Your task to perform on an android device: change the clock display to show seconds Image 0: 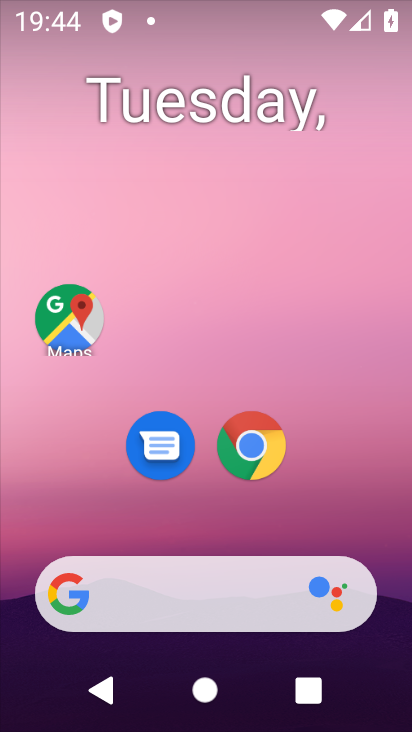
Step 0: drag from (199, 535) to (402, 33)
Your task to perform on an android device: change the clock display to show seconds Image 1: 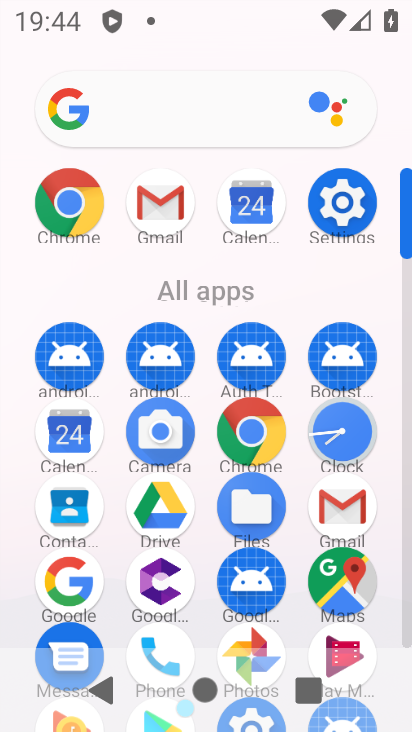
Step 1: click (331, 443)
Your task to perform on an android device: change the clock display to show seconds Image 2: 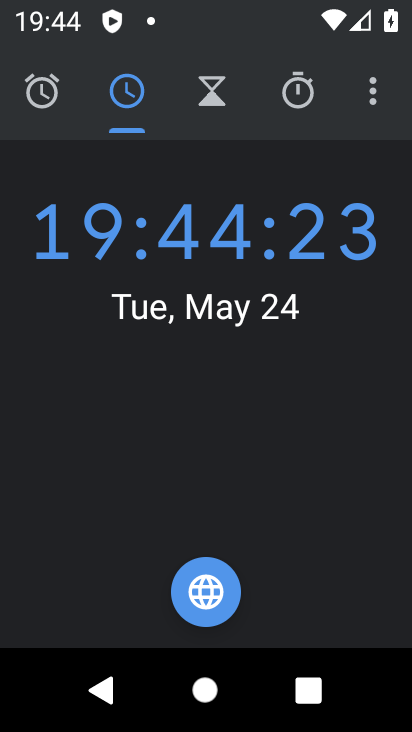
Step 2: click (381, 96)
Your task to perform on an android device: change the clock display to show seconds Image 3: 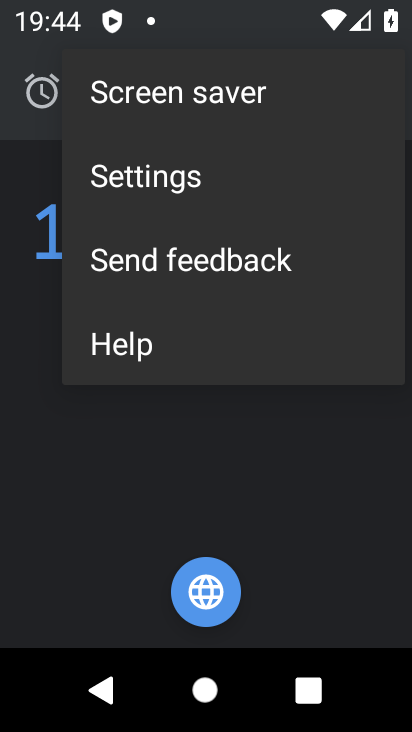
Step 3: click (223, 174)
Your task to perform on an android device: change the clock display to show seconds Image 4: 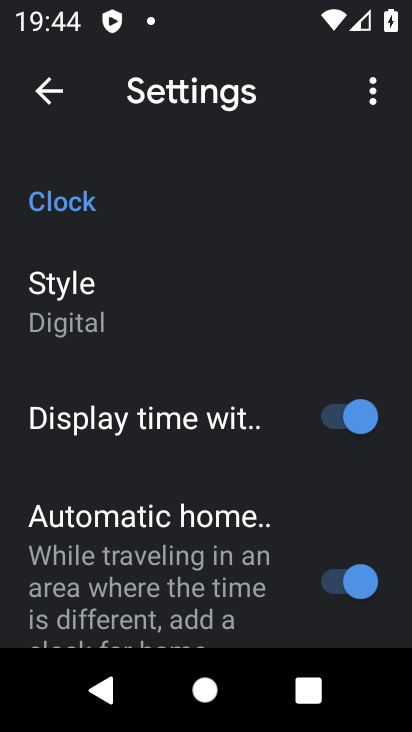
Step 4: click (40, 311)
Your task to perform on an android device: change the clock display to show seconds Image 5: 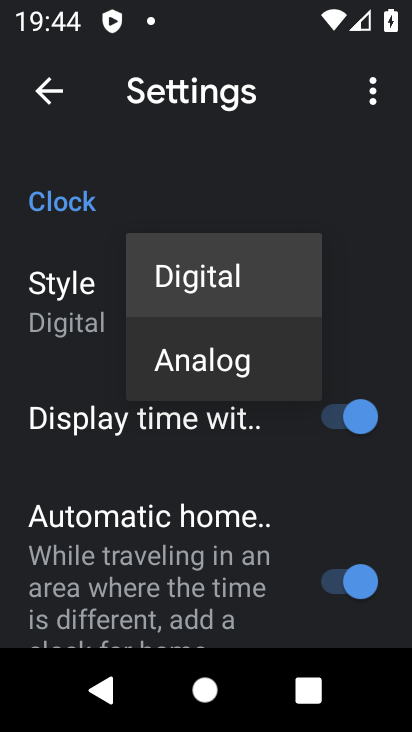
Step 5: task complete